Your task to perform on an android device: turn off location Image 0: 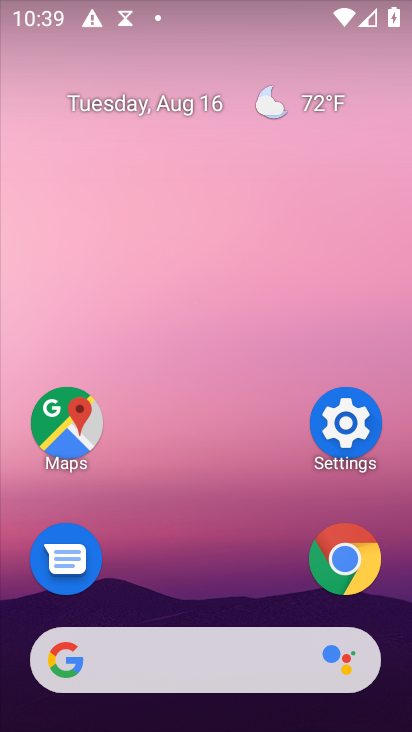
Step 0: click (348, 417)
Your task to perform on an android device: turn off location Image 1: 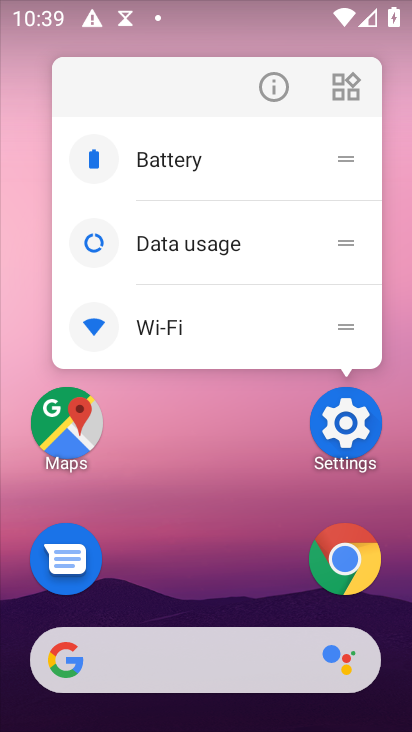
Step 1: click (347, 431)
Your task to perform on an android device: turn off location Image 2: 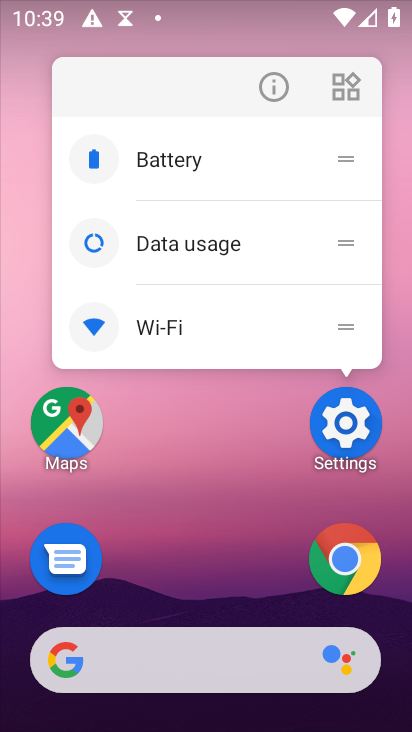
Step 2: click (347, 418)
Your task to perform on an android device: turn off location Image 3: 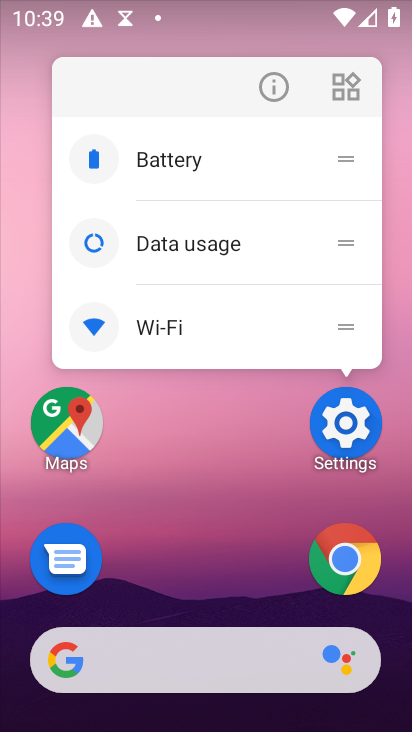
Step 3: click (347, 417)
Your task to perform on an android device: turn off location Image 4: 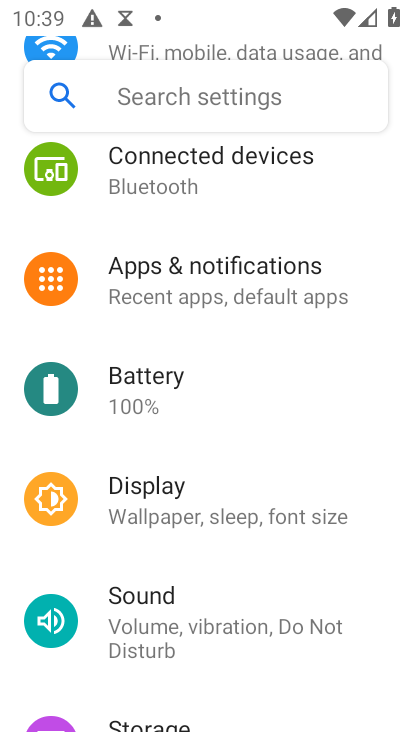
Step 4: drag from (224, 690) to (392, 135)
Your task to perform on an android device: turn off location Image 5: 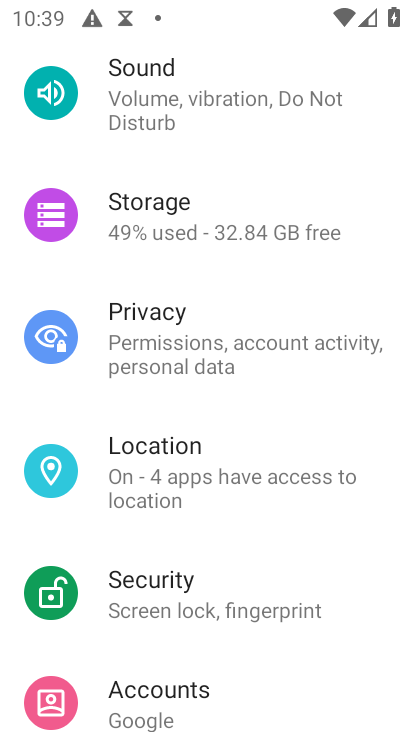
Step 5: click (165, 457)
Your task to perform on an android device: turn off location Image 6: 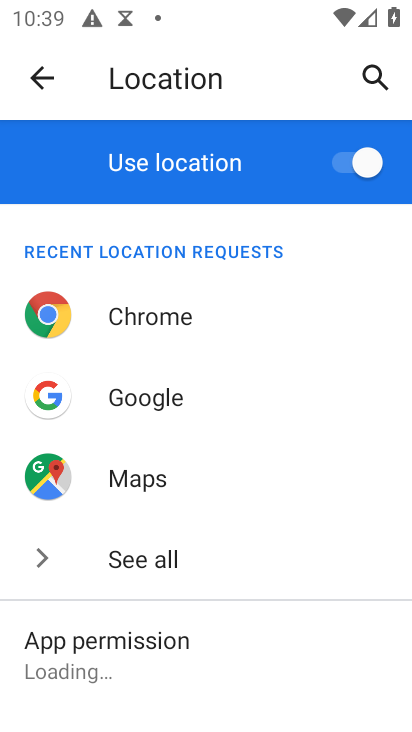
Step 6: click (346, 160)
Your task to perform on an android device: turn off location Image 7: 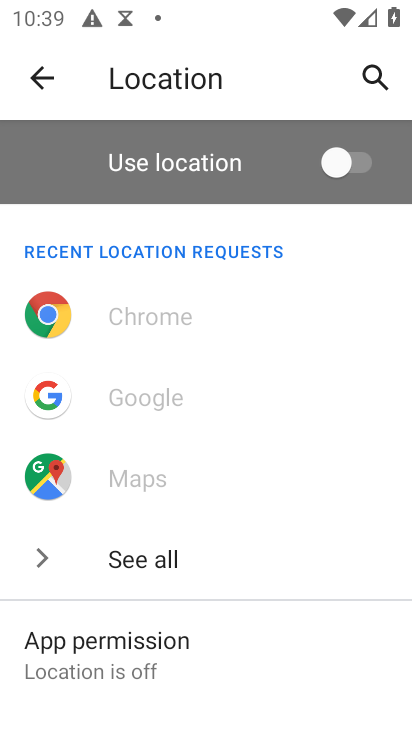
Step 7: task complete